Your task to perform on an android device: add a contact in the contacts app Image 0: 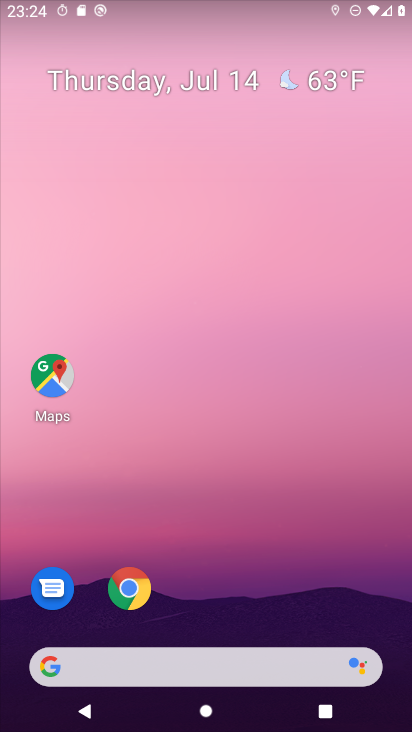
Step 0: drag from (307, 620) to (342, 67)
Your task to perform on an android device: add a contact in the contacts app Image 1: 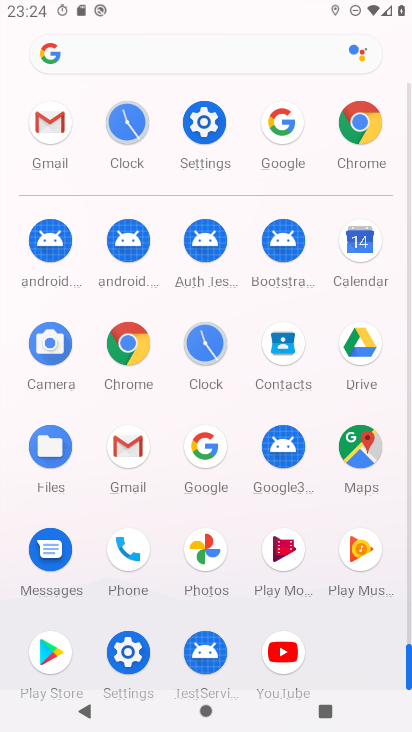
Step 1: click (286, 347)
Your task to perform on an android device: add a contact in the contacts app Image 2: 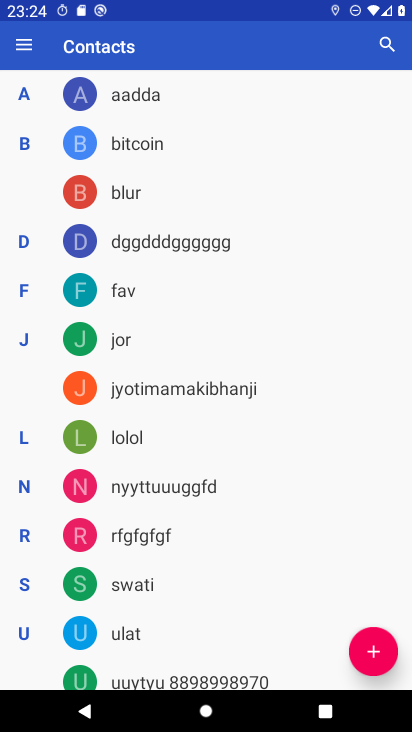
Step 2: click (376, 647)
Your task to perform on an android device: add a contact in the contacts app Image 3: 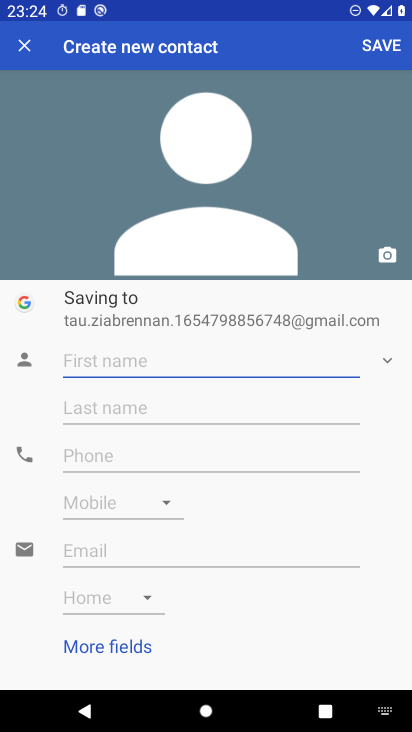
Step 3: type "fav"
Your task to perform on an android device: add a contact in the contacts app Image 4: 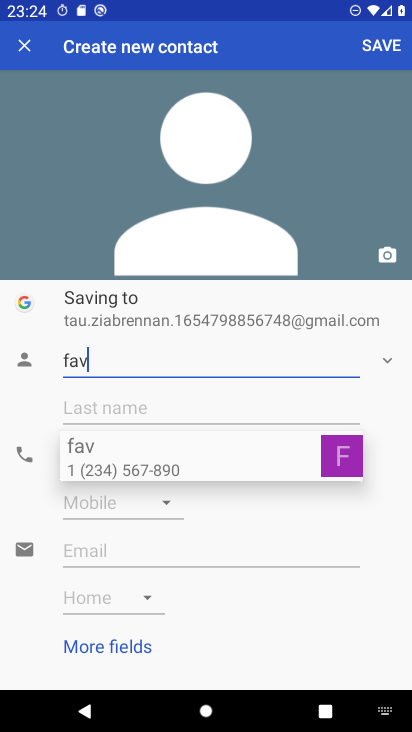
Step 4: click (401, 447)
Your task to perform on an android device: add a contact in the contacts app Image 5: 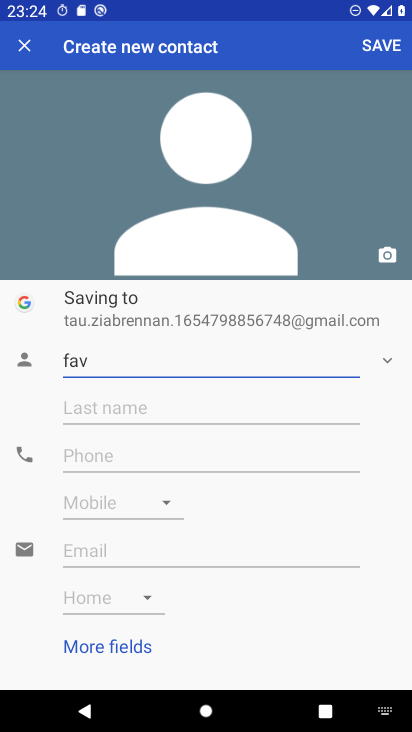
Step 5: click (227, 461)
Your task to perform on an android device: add a contact in the contacts app Image 6: 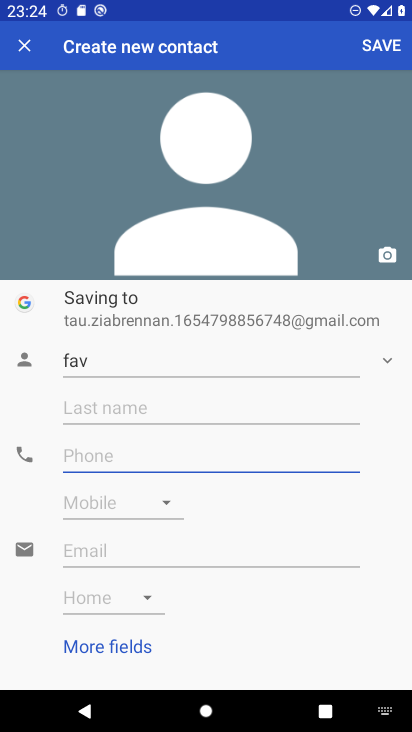
Step 6: type "1234556789"
Your task to perform on an android device: add a contact in the contacts app Image 7: 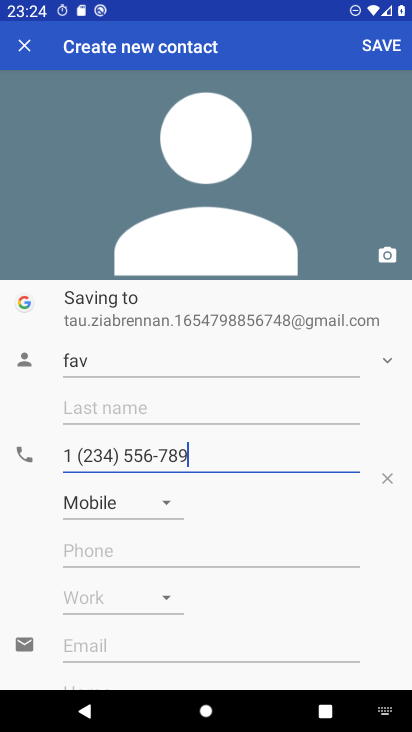
Step 7: click (379, 43)
Your task to perform on an android device: add a contact in the contacts app Image 8: 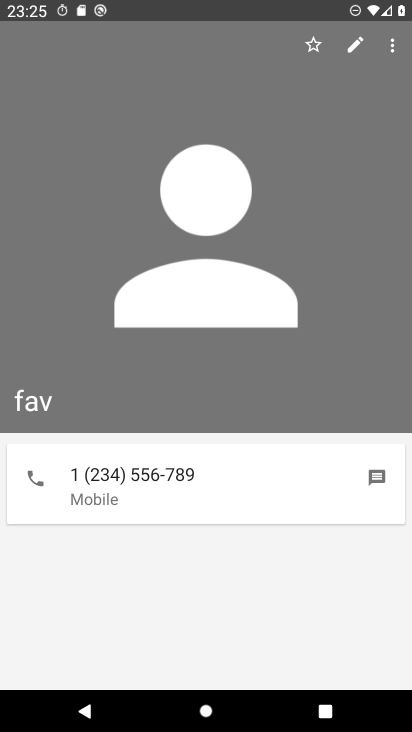
Step 8: task complete